Your task to perform on an android device: Is it going to rain today? Image 0: 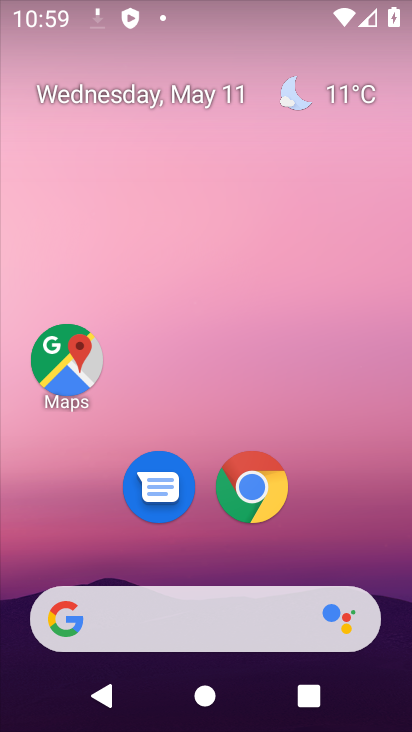
Step 0: press home button
Your task to perform on an android device: Is it going to rain today? Image 1: 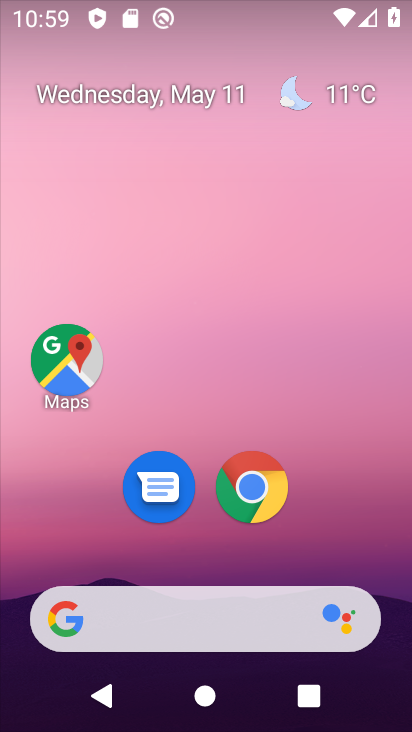
Step 1: click (258, 478)
Your task to perform on an android device: Is it going to rain today? Image 2: 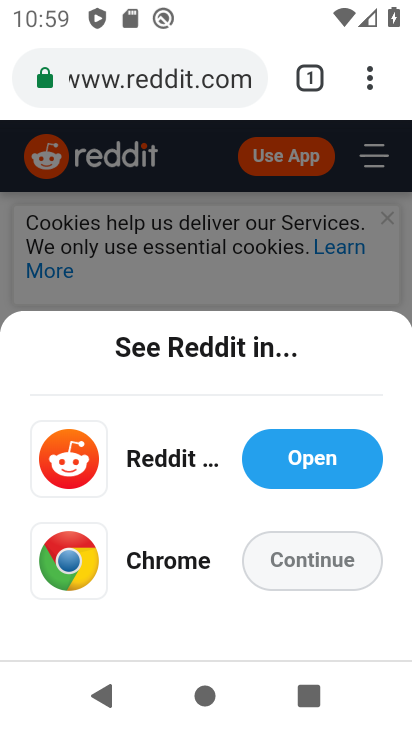
Step 2: click (196, 88)
Your task to perform on an android device: Is it going to rain today? Image 3: 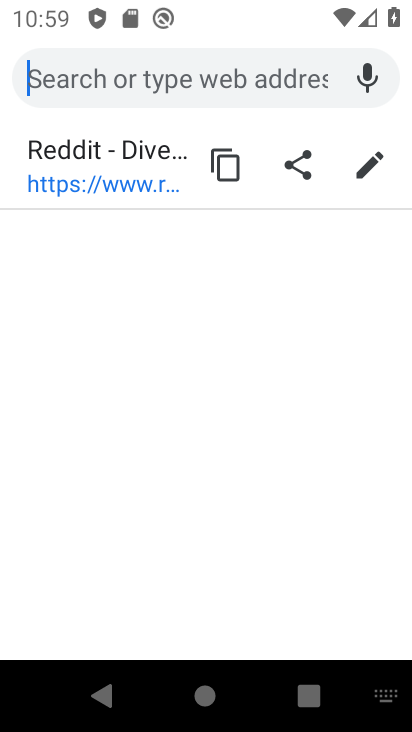
Step 3: type "is it going to rain today"
Your task to perform on an android device: Is it going to rain today? Image 4: 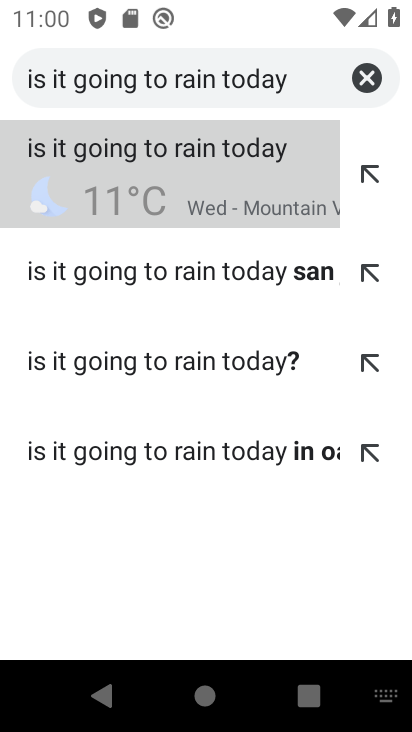
Step 4: click (250, 183)
Your task to perform on an android device: Is it going to rain today? Image 5: 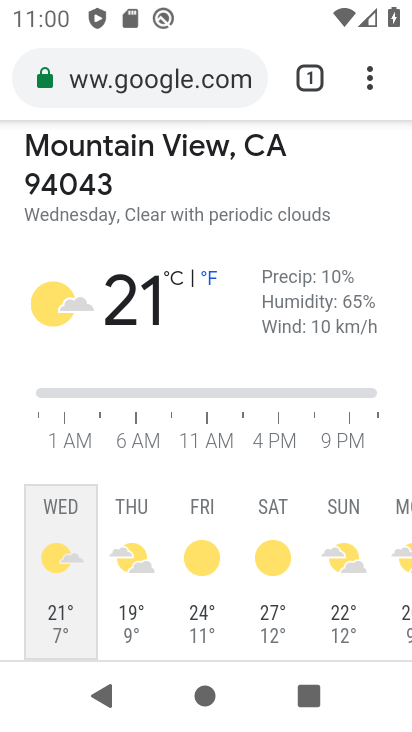
Step 5: task complete